Your task to perform on an android device: Go to Maps Image 0: 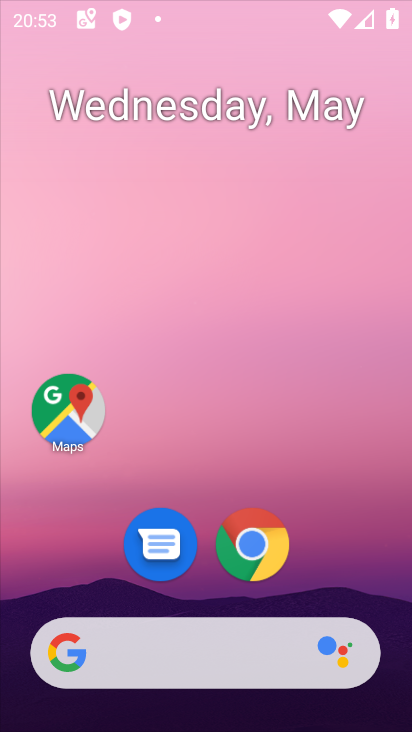
Step 0: click (265, 539)
Your task to perform on an android device: Go to Maps Image 1: 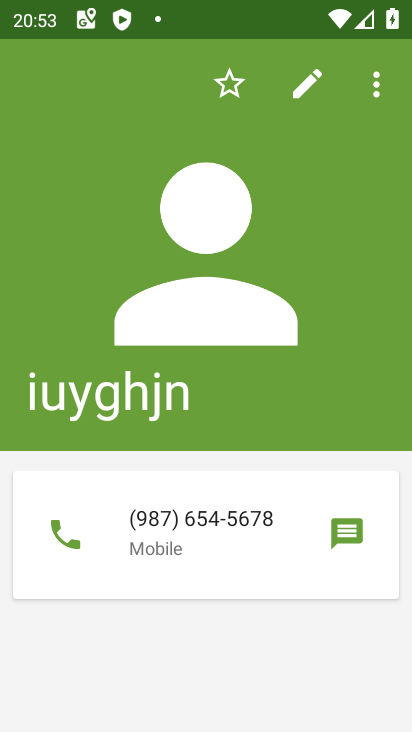
Step 1: press home button
Your task to perform on an android device: Go to Maps Image 2: 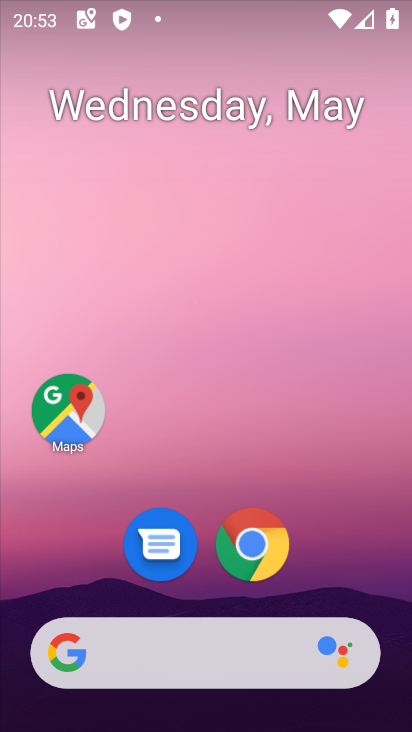
Step 2: click (78, 402)
Your task to perform on an android device: Go to Maps Image 3: 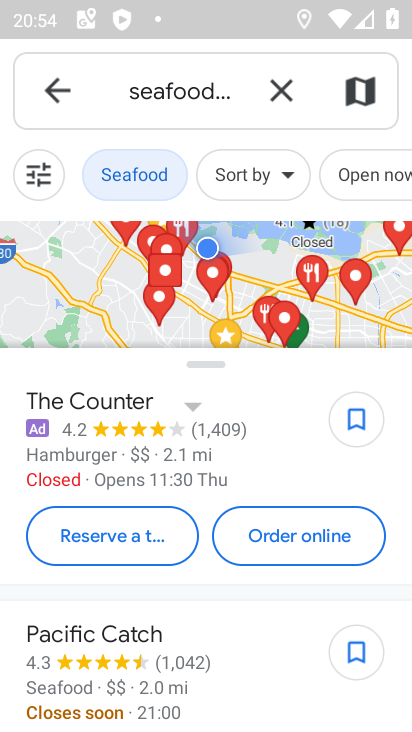
Step 3: task complete